Your task to perform on an android device: Open network settings Image 0: 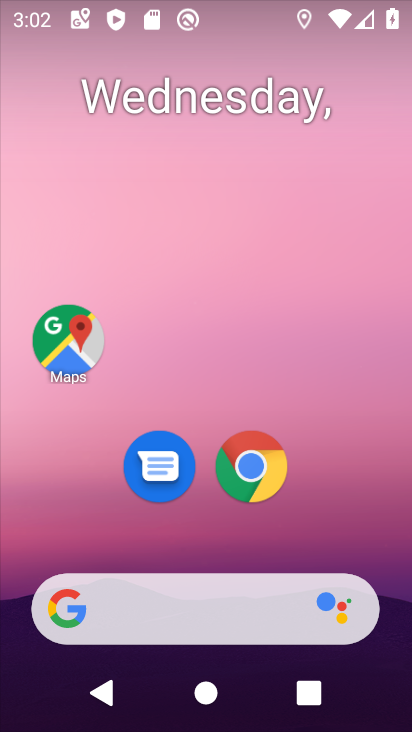
Step 0: drag from (204, 542) to (236, 21)
Your task to perform on an android device: Open network settings Image 1: 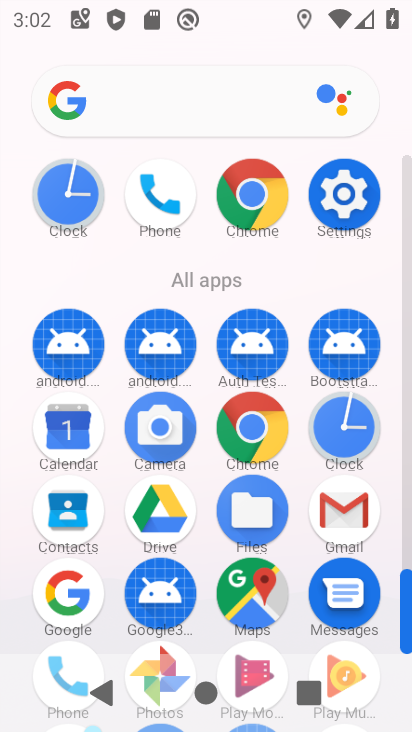
Step 1: click (343, 184)
Your task to perform on an android device: Open network settings Image 2: 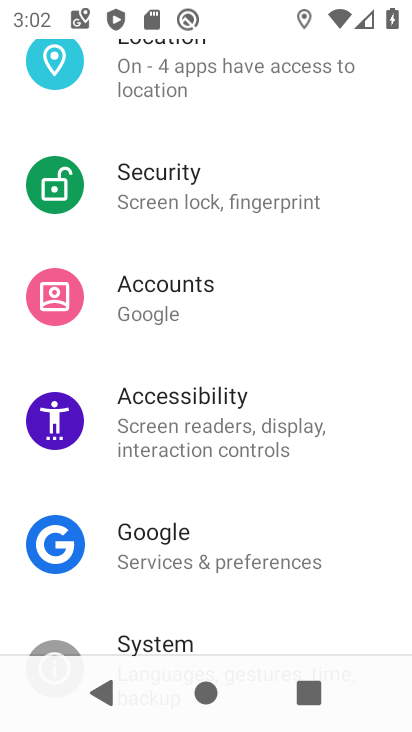
Step 2: drag from (240, 161) to (211, 663)
Your task to perform on an android device: Open network settings Image 3: 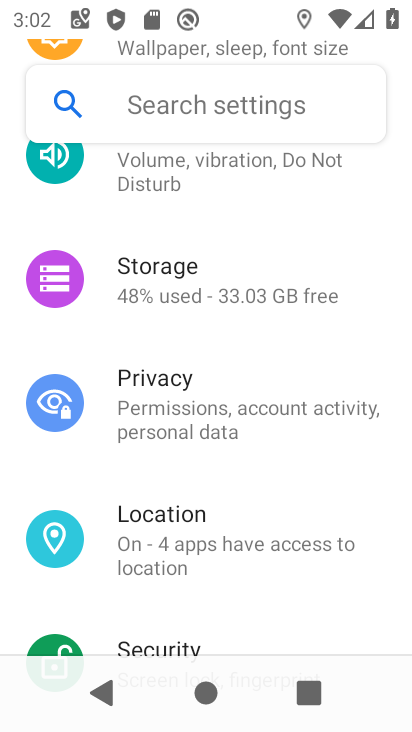
Step 3: drag from (202, 218) to (155, 696)
Your task to perform on an android device: Open network settings Image 4: 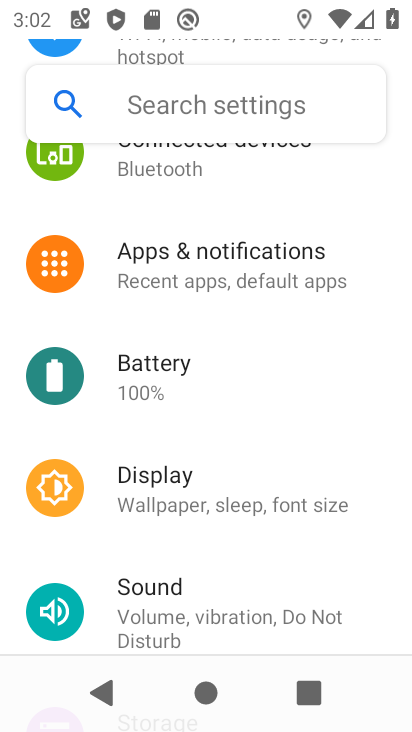
Step 4: drag from (161, 223) to (143, 702)
Your task to perform on an android device: Open network settings Image 5: 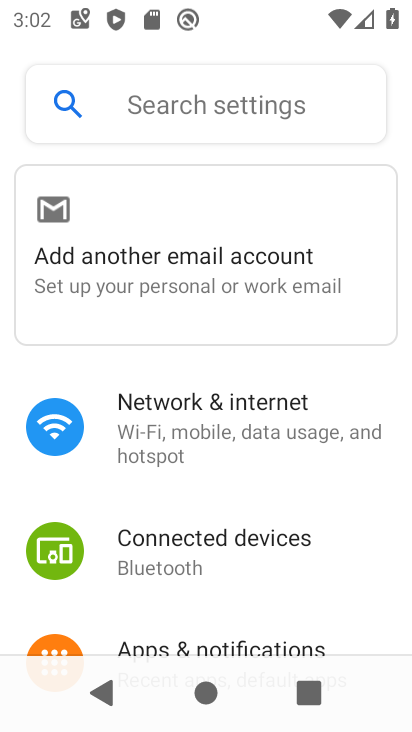
Step 5: click (142, 417)
Your task to perform on an android device: Open network settings Image 6: 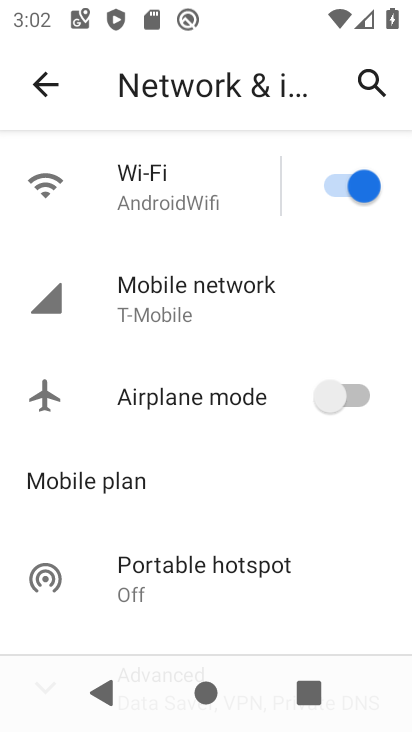
Step 6: click (165, 310)
Your task to perform on an android device: Open network settings Image 7: 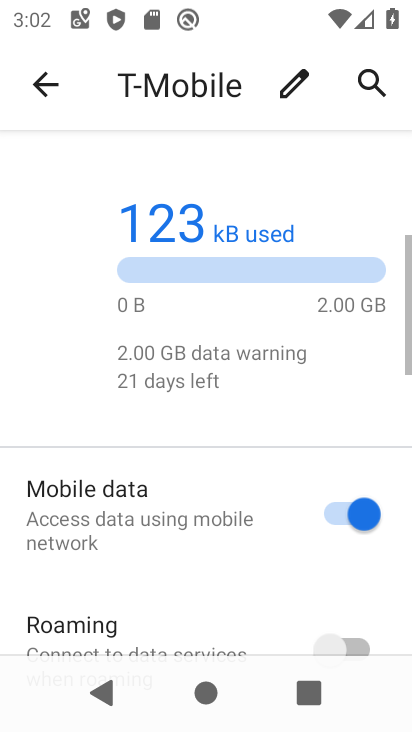
Step 7: task complete